Your task to perform on an android device: Go to Google Image 0: 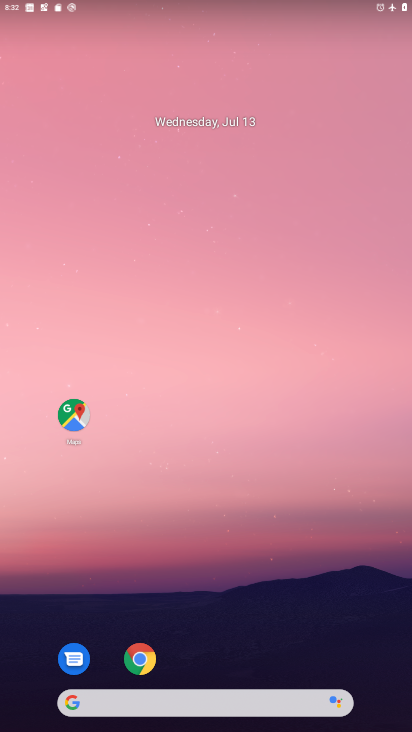
Step 0: click (73, 706)
Your task to perform on an android device: Go to Google Image 1: 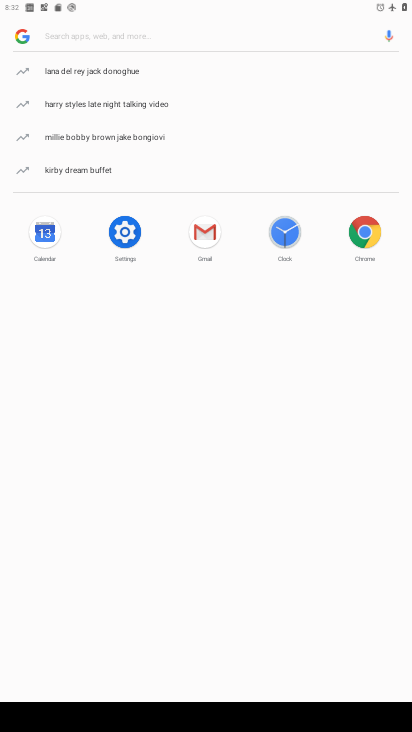
Step 1: click (25, 34)
Your task to perform on an android device: Go to Google Image 2: 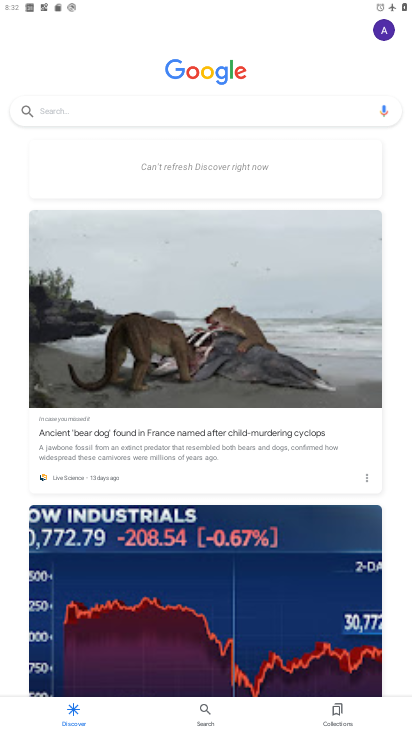
Step 2: task complete